Your task to perform on an android device: check data usage Image 0: 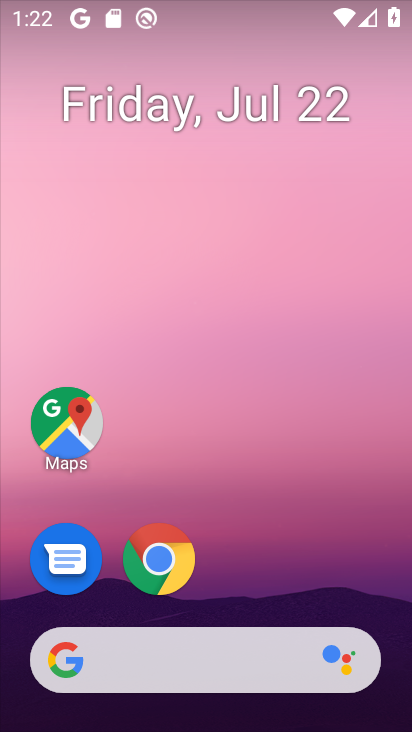
Step 0: drag from (275, 551) to (289, 2)
Your task to perform on an android device: check data usage Image 1: 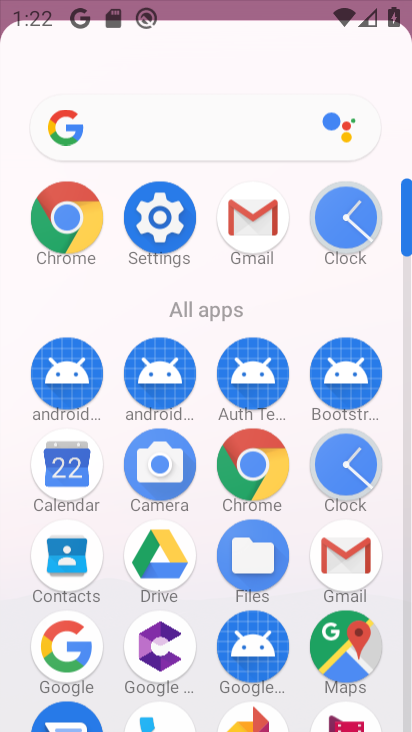
Step 1: click (156, 227)
Your task to perform on an android device: check data usage Image 2: 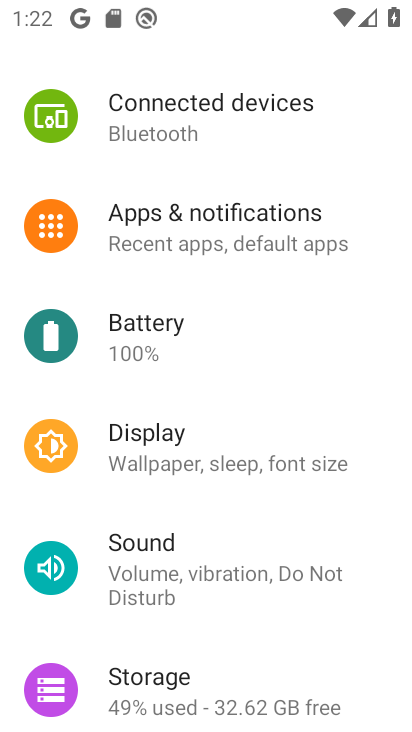
Step 2: drag from (165, 226) to (177, 729)
Your task to perform on an android device: check data usage Image 3: 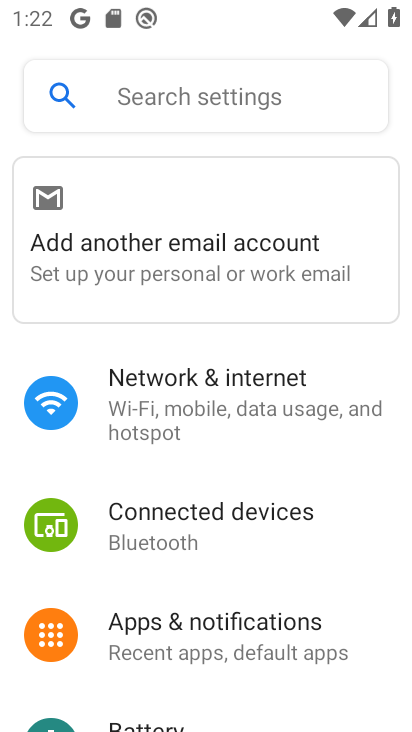
Step 3: click (204, 424)
Your task to perform on an android device: check data usage Image 4: 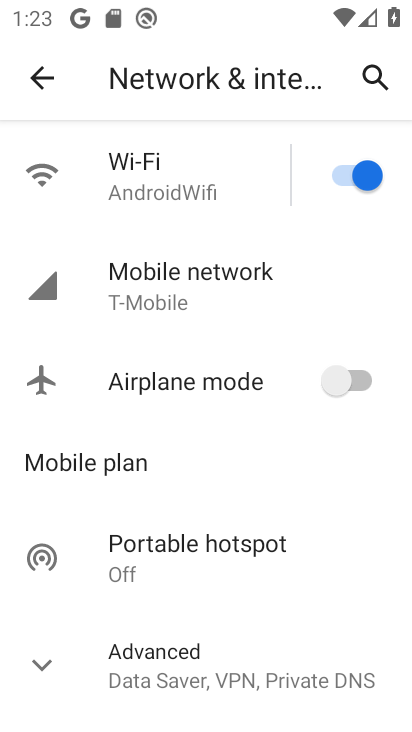
Step 4: click (182, 275)
Your task to perform on an android device: check data usage Image 5: 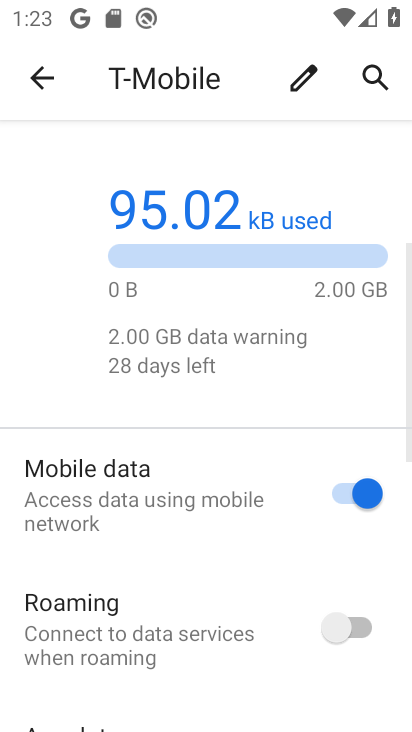
Step 5: drag from (140, 622) to (204, 212)
Your task to perform on an android device: check data usage Image 6: 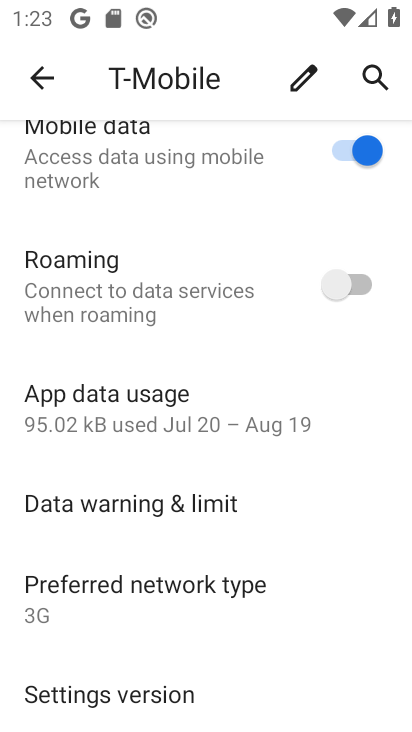
Step 6: click (191, 420)
Your task to perform on an android device: check data usage Image 7: 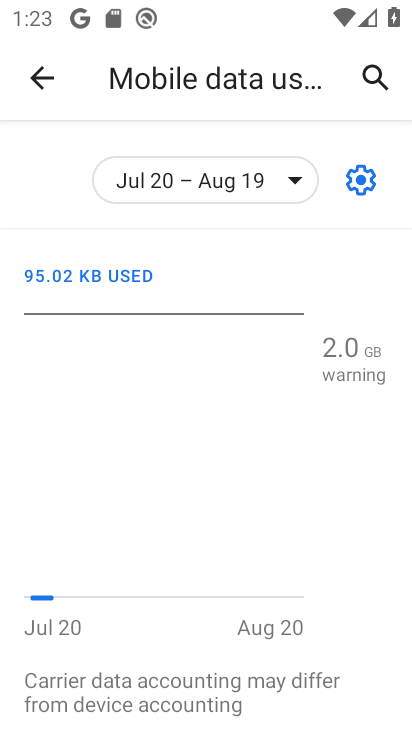
Step 7: task complete